Your task to perform on an android device: Open Chrome and go to the settings page Image 0: 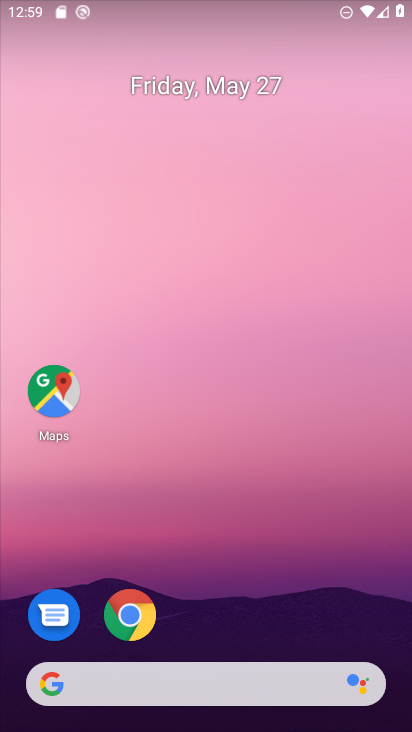
Step 0: drag from (223, 580) to (251, 154)
Your task to perform on an android device: Open Chrome and go to the settings page Image 1: 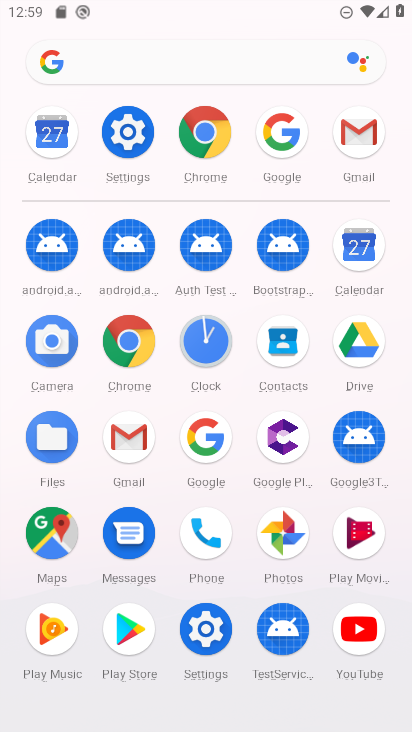
Step 1: click (135, 345)
Your task to perform on an android device: Open Chrome and go to the settings page Image 2: 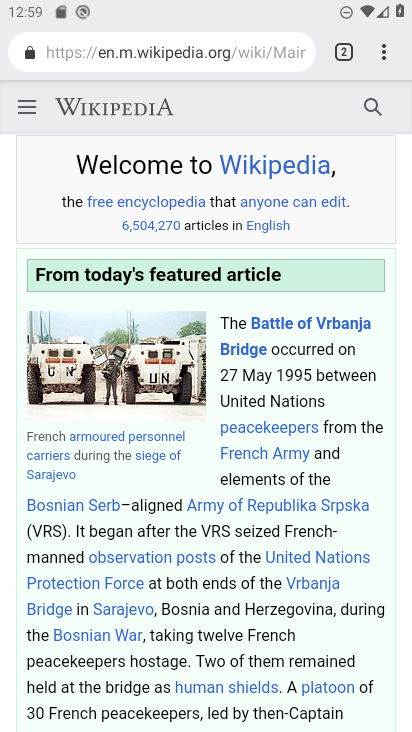
Step 2: click (378, 59)
Your task to perform on an android device: Open Chrome and go to the settings page Image 3: 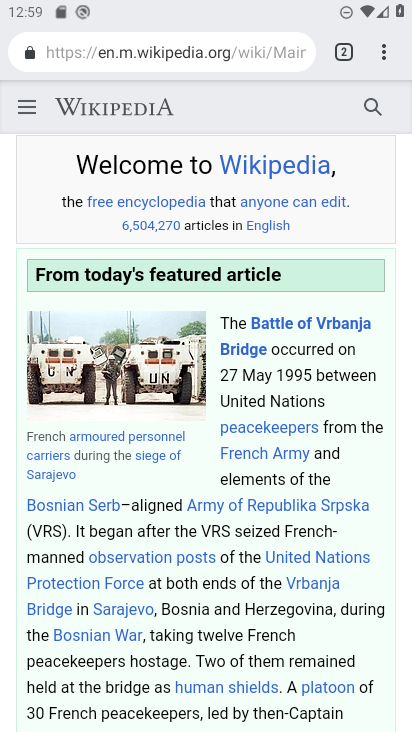
Step 3: click (382, 59)
Your task to perform on an android device: Open Chrome and go to the settings page Image 4: 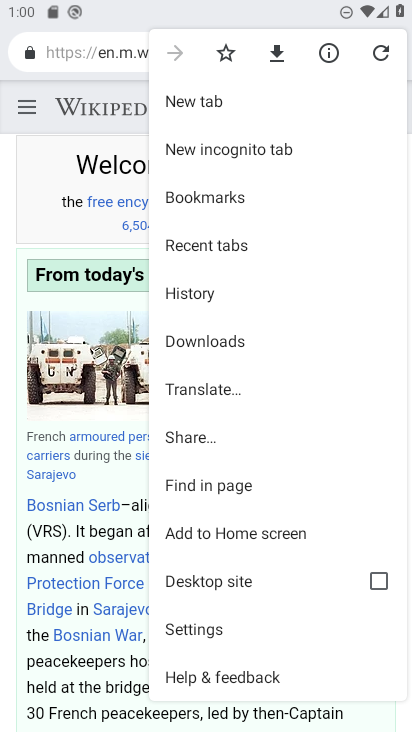
Step 4: click (226, 630)
Your task to perform on an android device: Open Chrome and go to the settings page Image 5: 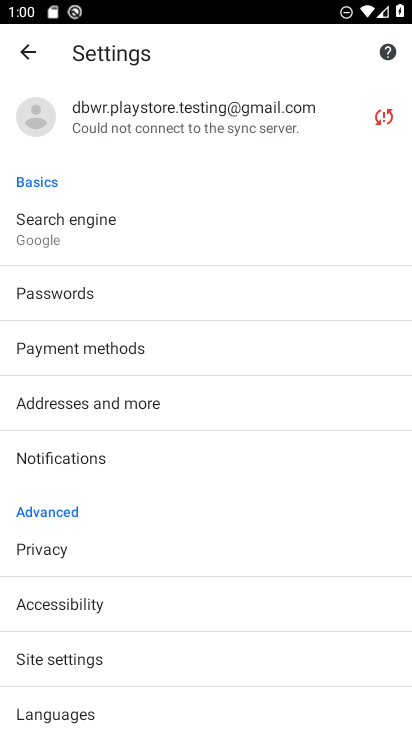
Step 5: task complete